Your task to perform on an android device: open wifi settings Image 0: 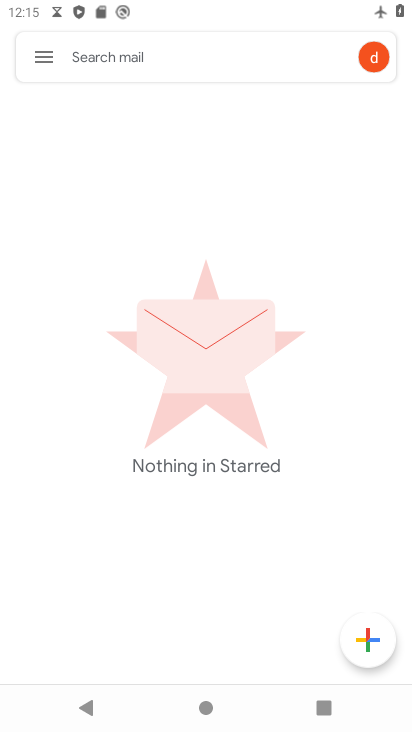
Step 0: press home button
Your task to perform on an android device: open wifi settings Image 1: 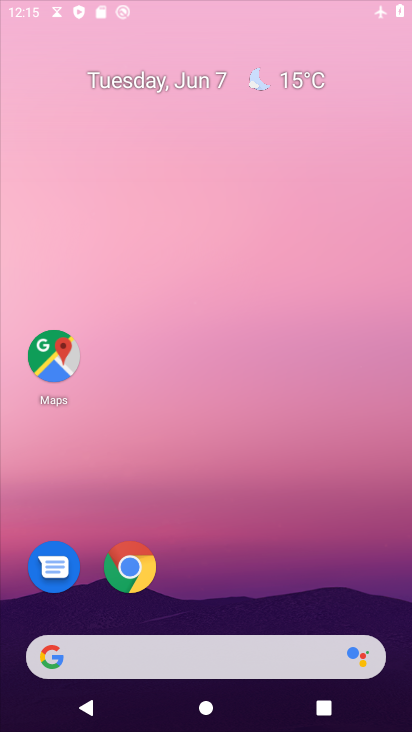
Step 1: drag from (115, 688) to (213, 90)
Your task to perform on an android device: open wifi settings Image 2: 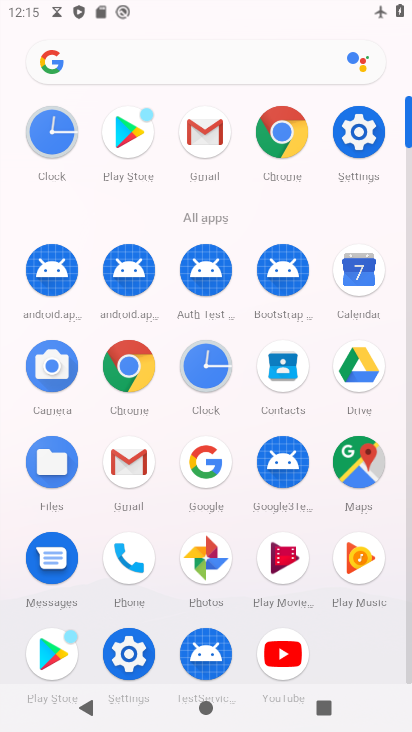
Step 2: click (381, 122)
Your task to perform on an android device: open wifi settings Image 3: 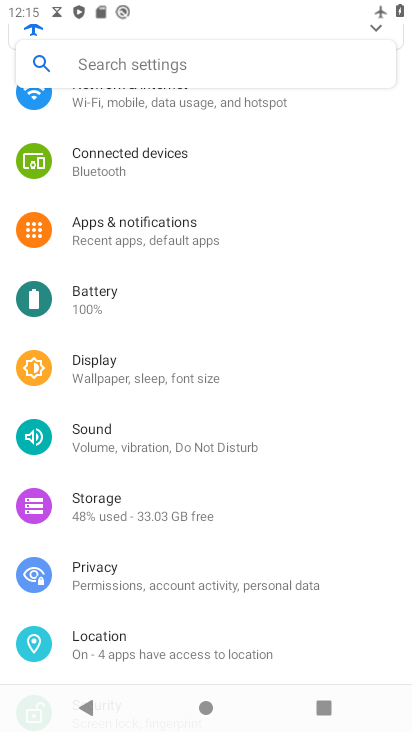
Step 3: drag from (173, 185) to (220, 574)
Your task to perform on an android device: open wifi settings Image 4: 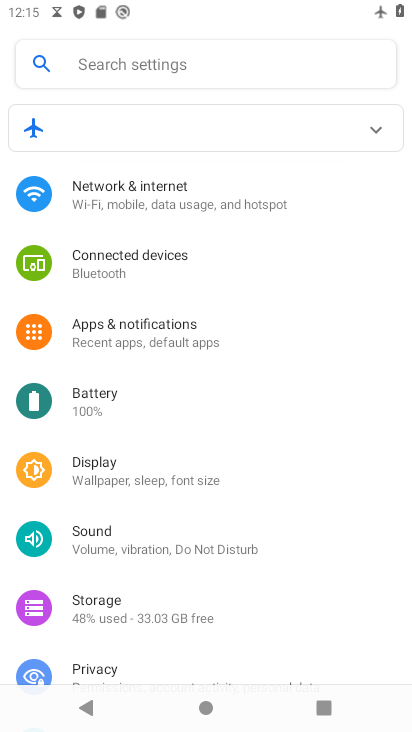
Step 4: click (209, 178)
Your task to perform on an android device: open wifi settings Image 5: 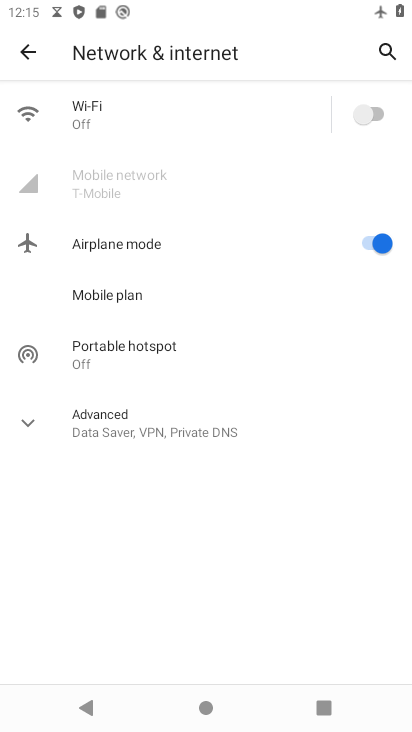
Step 5: task complete